Your task to perform on an android device: Open calendar and show me the fourth week of next month Image 0: 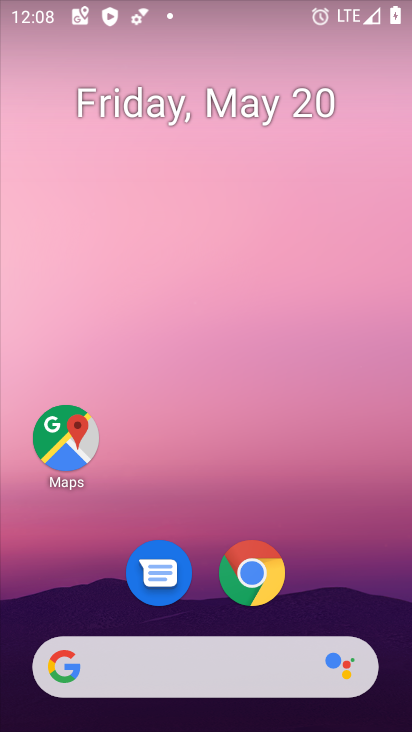
Step 0: drag from (214, 607) to (385, 149)
Your task to perform on an android device: Open calendar and show me the fourth week of next month Image 1: 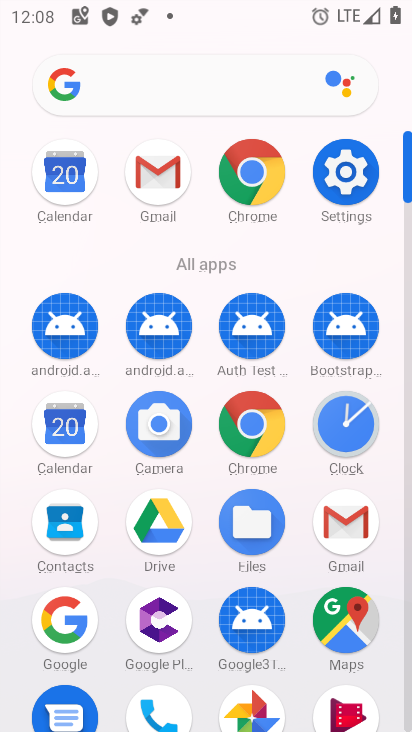
Step 1: click (66, 440)
Your task to perform on an android device: Open calendar and show me the fourth week of next month Image 2: 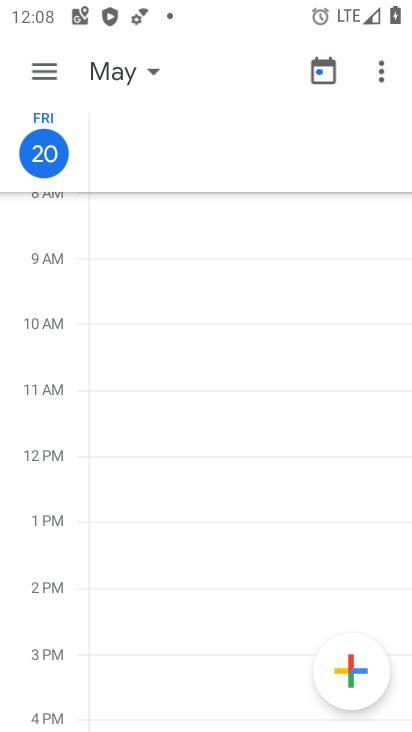
Step 2: click (51, 74)
Your task to perform on an android device: Open calendar and show me the fourth week of next month Image 3: 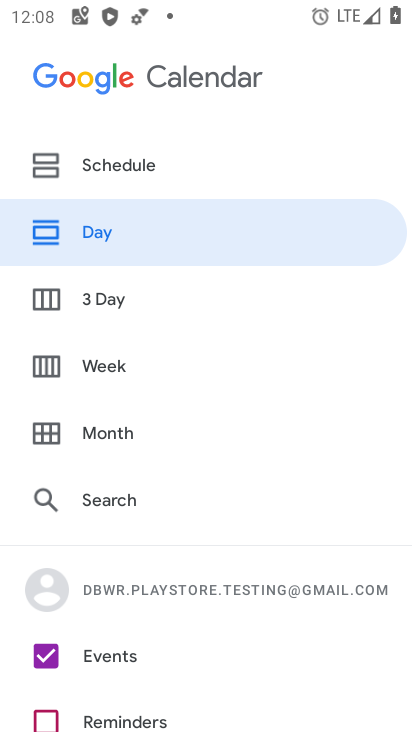
Step 3: click (117, 360)
Your task to perform on an android device: Open calendar and show me the fourth week of next month Image 4: 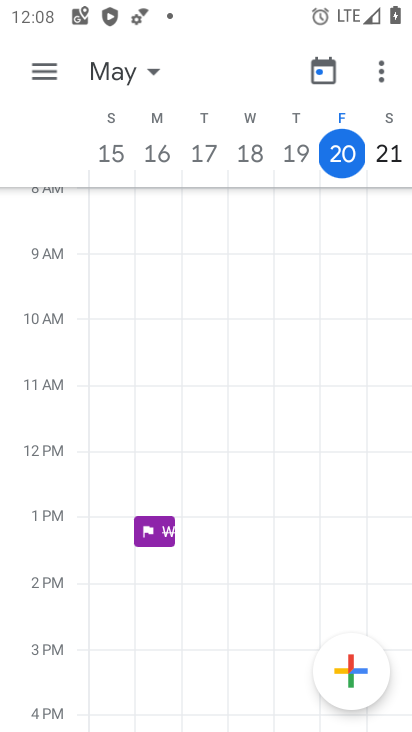
Step 4: task complete